Your task to perform on an android device: Go to Yahoo.com Image 0: 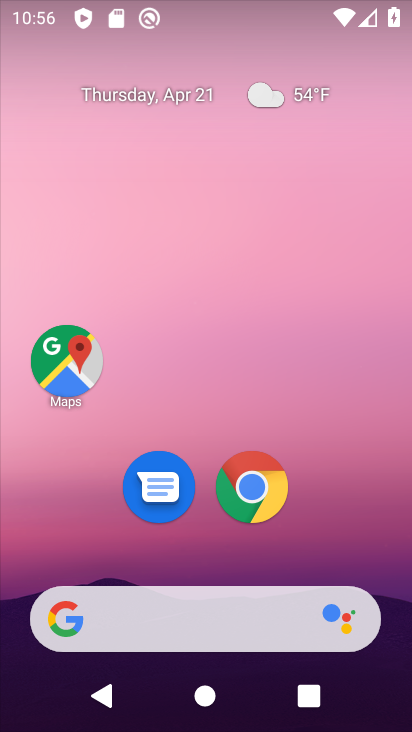
Step 0: drag from (381, 460) to (360, 41)
Your task to perform on an android device: Go to Yahoo.com Image 1: 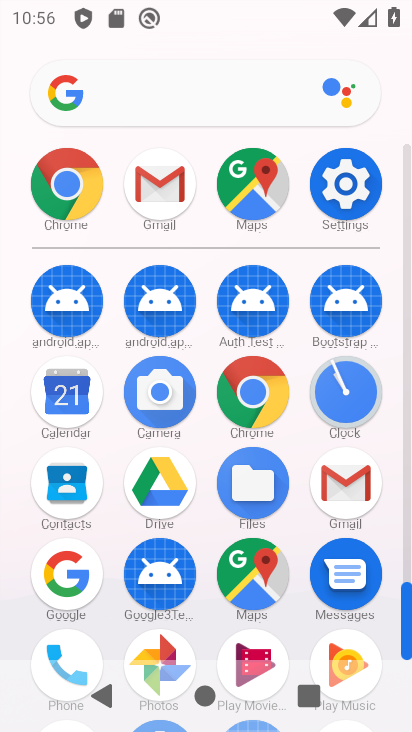
Step 1: drag from (283, 585) to (275, 250)
Your task to perform on an android device: Go to Yahoo.com Image 2: 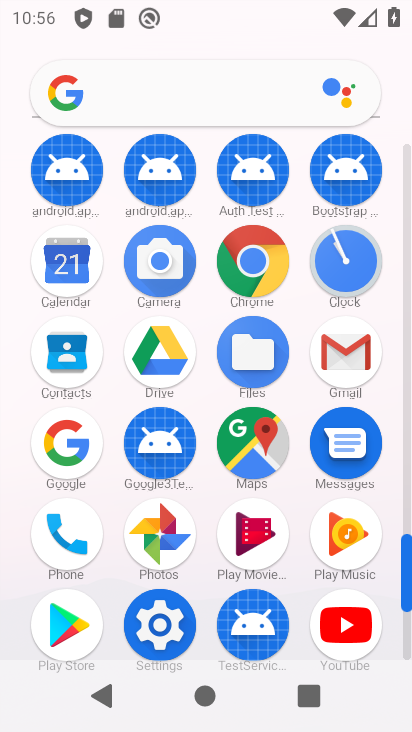
Step 2: drag from (199, 215) to (173, 596)
Your task to perform on an android device: Go to Yahoo.com Image 3: 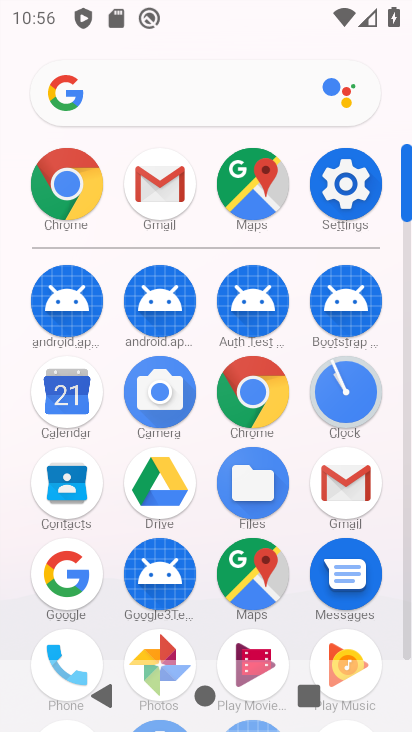
Step 3: drag from (204, 645) to (231, 345)
Your task to perform on an android device: Go to Yahoo.com Image 4: 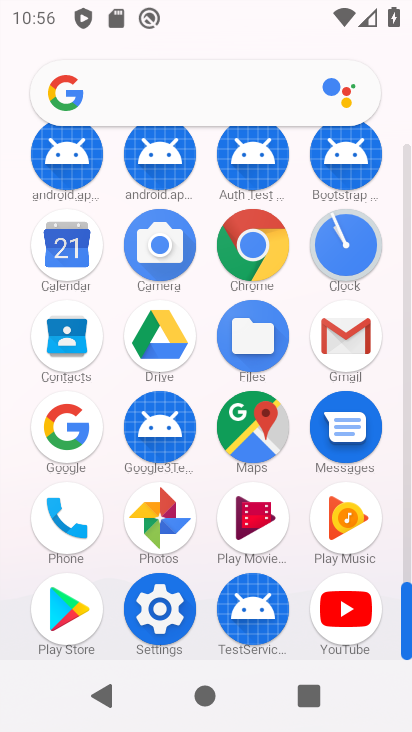
Step 4: click (261, 225)
Your task to perform on an android device: Go to Yahoo.com Image 5: 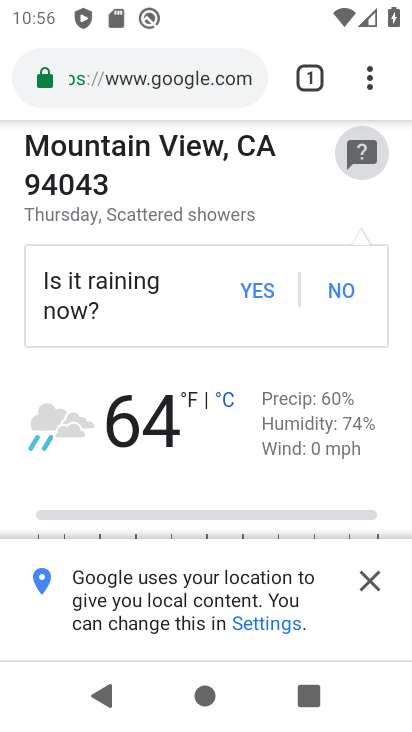
Step 5: click (193, 75)
Your task to perform on an android device: Go to Yahoo.com Image 6: 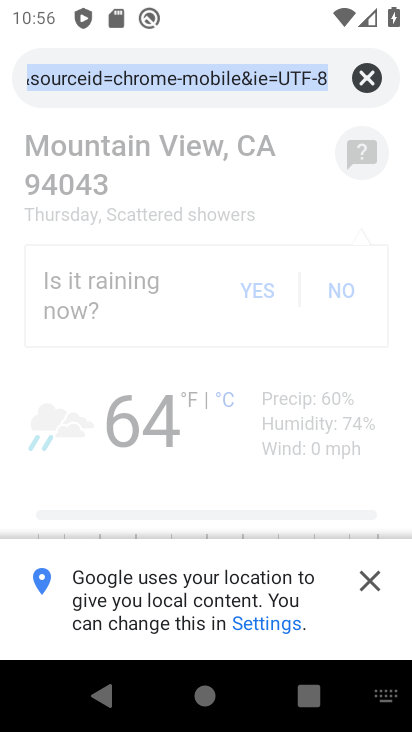
Step 6: click (374, 72)
Your task to perform on an android device: Go to Yahoo.com Image 7: 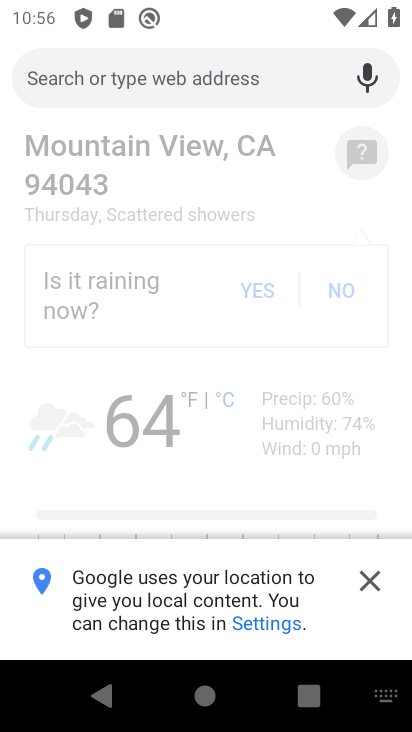
Step 7: type ""
Your task to perform on an android device: Go to Yahoo.com Image 8: 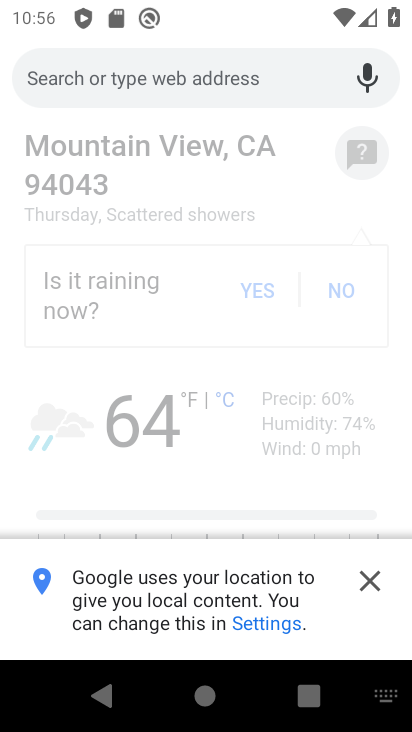
Step 8: type "yahoo.com"
Your task to perform on an android device: Go to Yahoo.com Image 9: 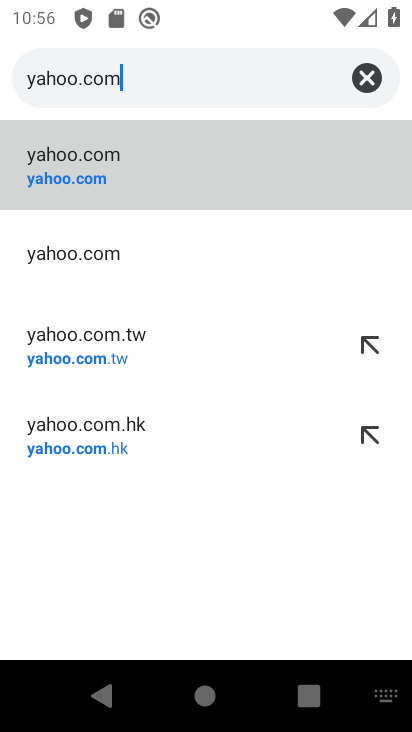
Step 9: click (71, 161)
Your task to perform on an android device: Go to Yahoo.com Image 10: 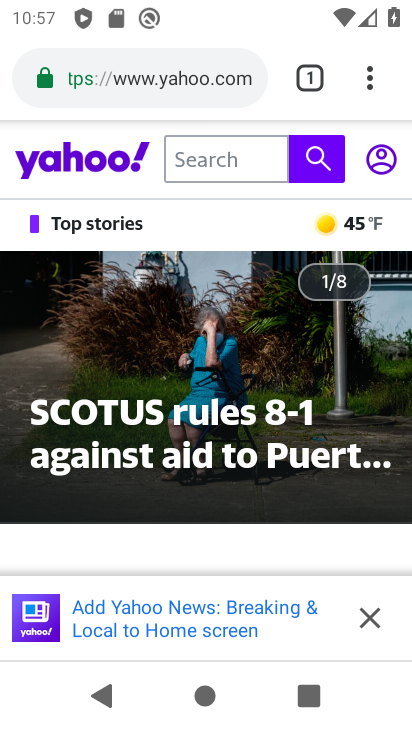
Step 10: click (375, 623)
Your task to perform on an android device: Go to Yahoo.com Image 11: 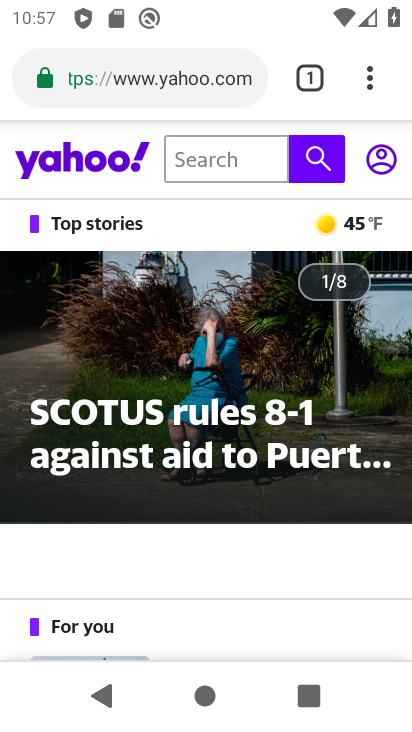
Step 11: task complete